Your task to perform on an android device: empty trash in the gmail app Image 0: 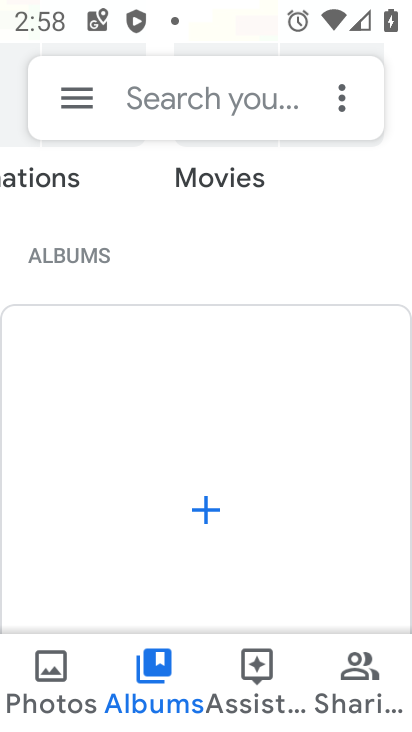
Step 0: press home button
Your task to perform on an android device: empty trash in the gmail app Image 1: 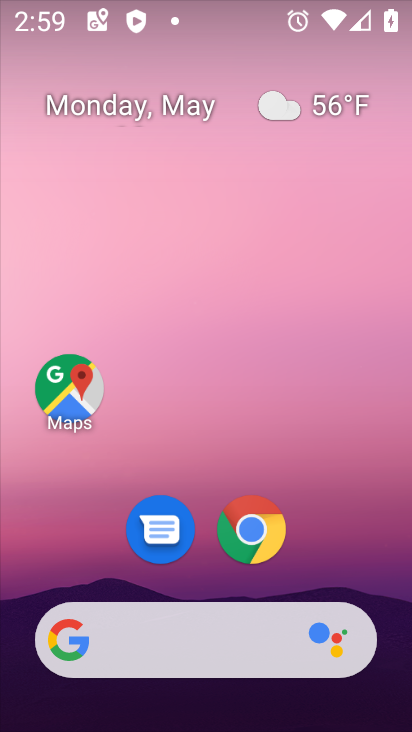
Step 1: drag from (354, 561) to (346, 0)
Your task to perform on an android device: empty trash in the gmail app Image 2: 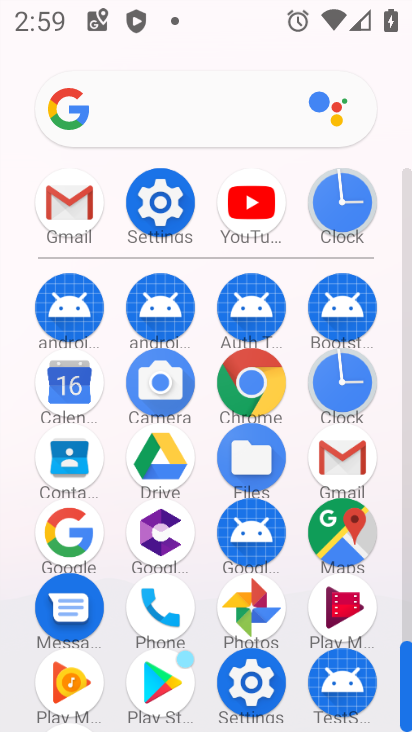
Step 2: click (337, 459)
Your task to perform on an android device: empty trash in the gmail app Image 3: 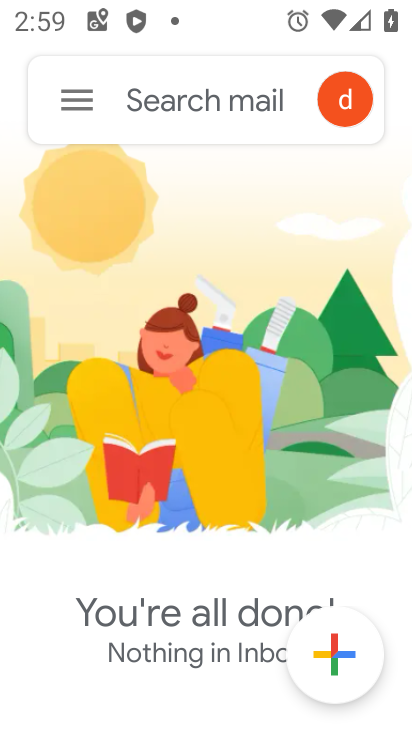
Step 3: click (70, 97)
Your task to perform on an android device: empty trash in the gmail app Image 4: 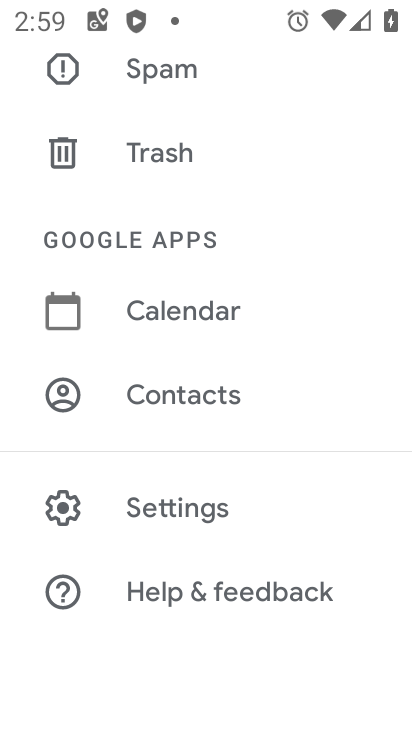
Step 4: click (204, 160)
Your task to perform on an android device: empty trash in the gmail app Image 5: 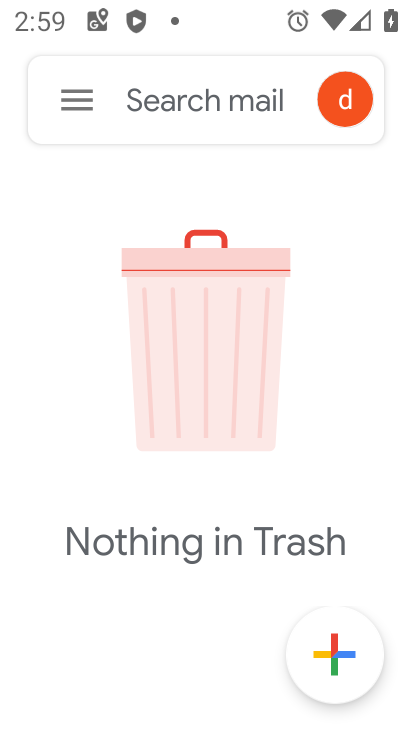
Step 5: task complete